Your task to perform on an android device: open app "DoorDash - Food Delivery" (install if not already installed), go to login, and select forgot password Image 0: 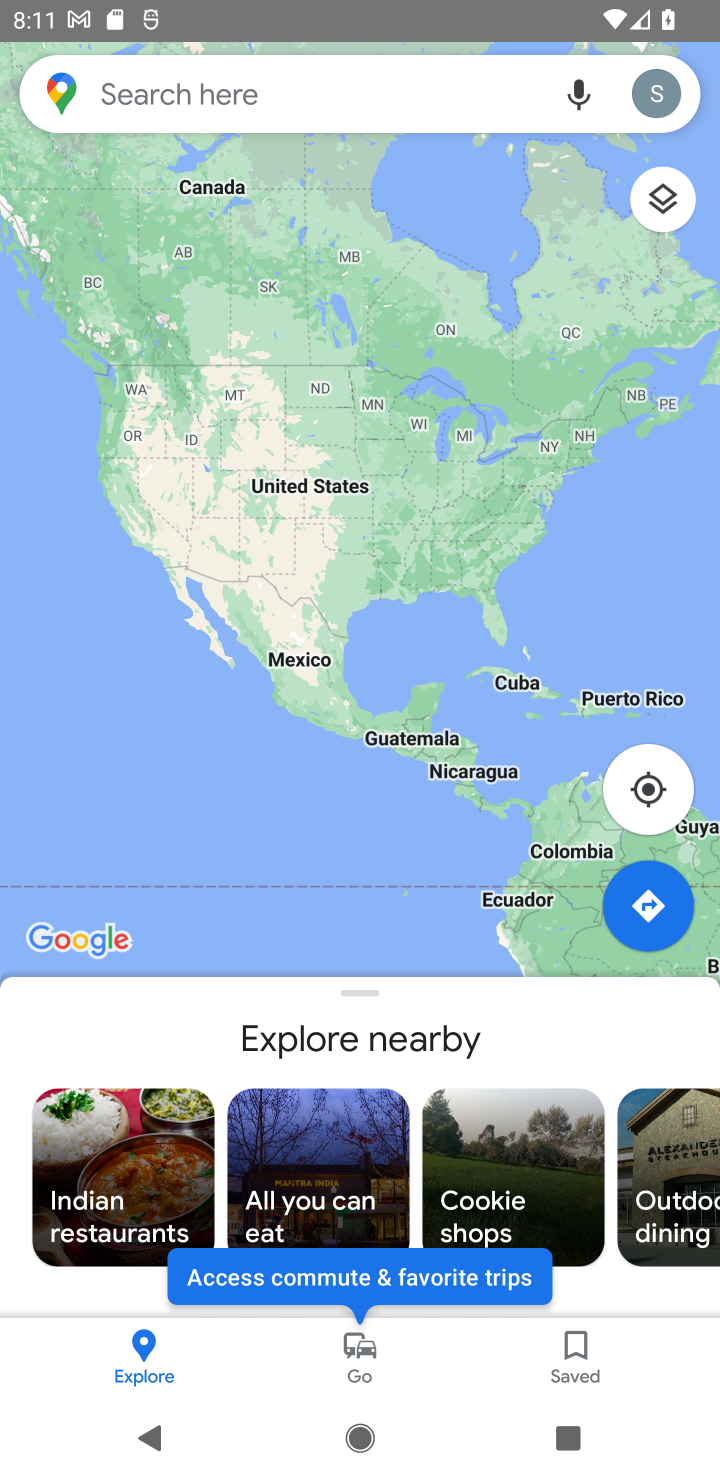
Step 0: press home button
Your task to perform on an android device: open app "DoorDash - Food Delivery" (install if not already installed), go to login, and select forgot password Image 1: 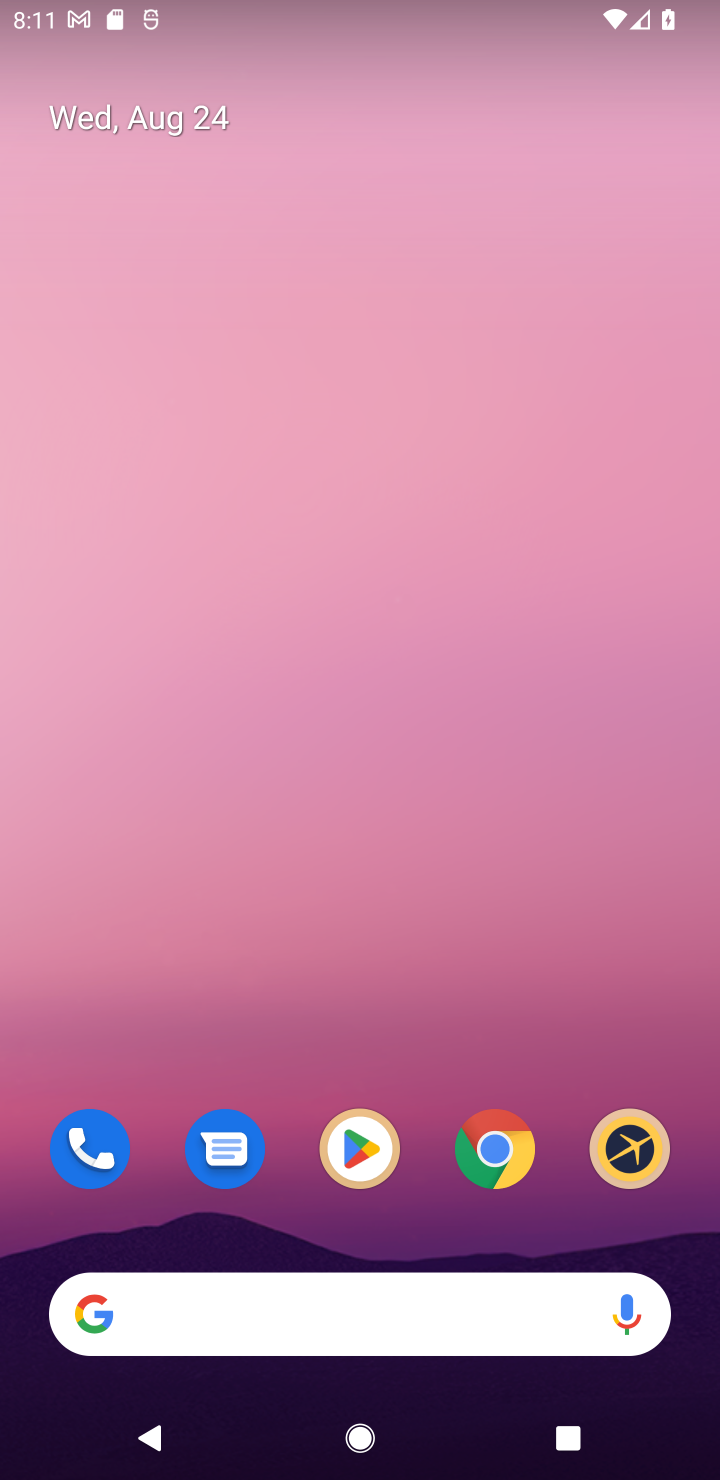
Step 1: click (327, 1137)
Your task to perform on an android device: open app "DoorDash - Food Delivery" (install if not already installed), go to login, and select forgot password Image 2: 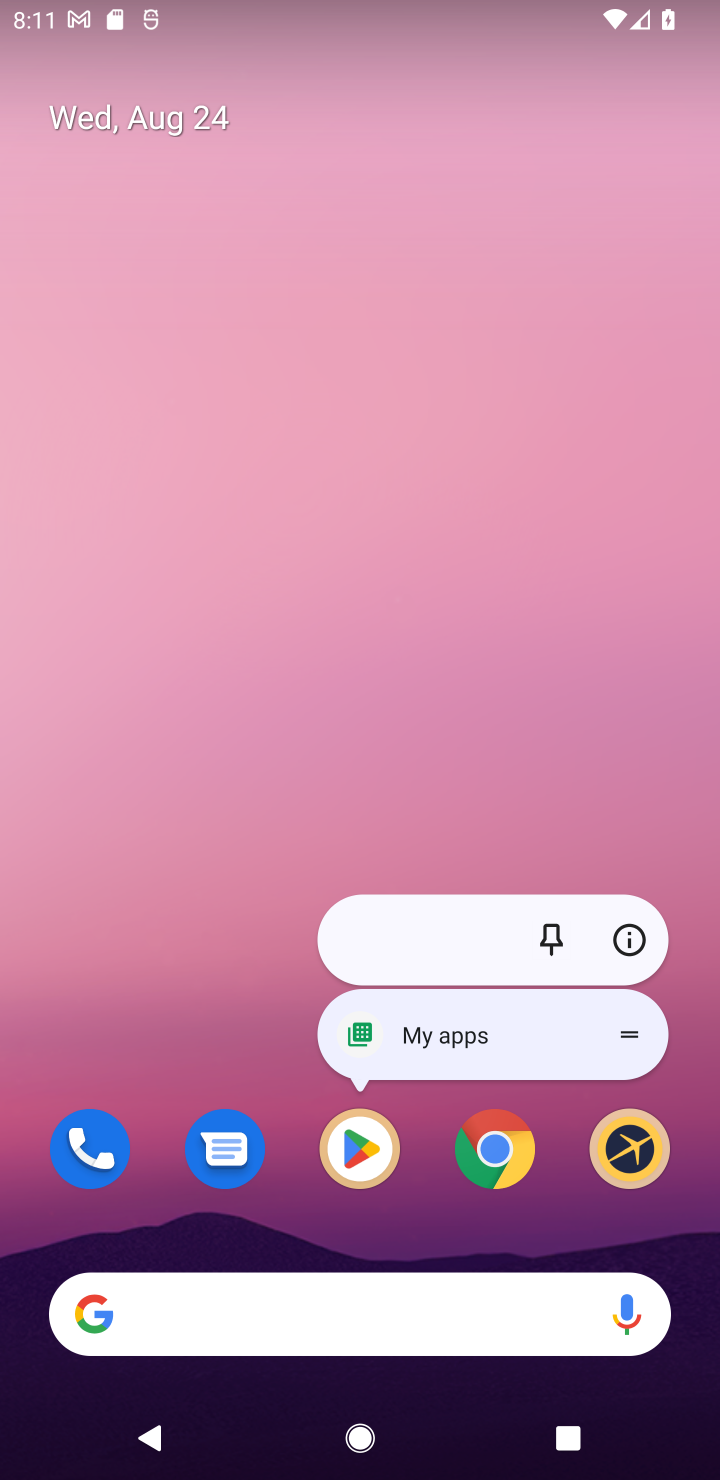
Step 2: click (334, 1137)
Your task to perform on an android device: open app "DoorDash - Food Delivery" (install if not already installed), go to login, and select forgot password Image 3: 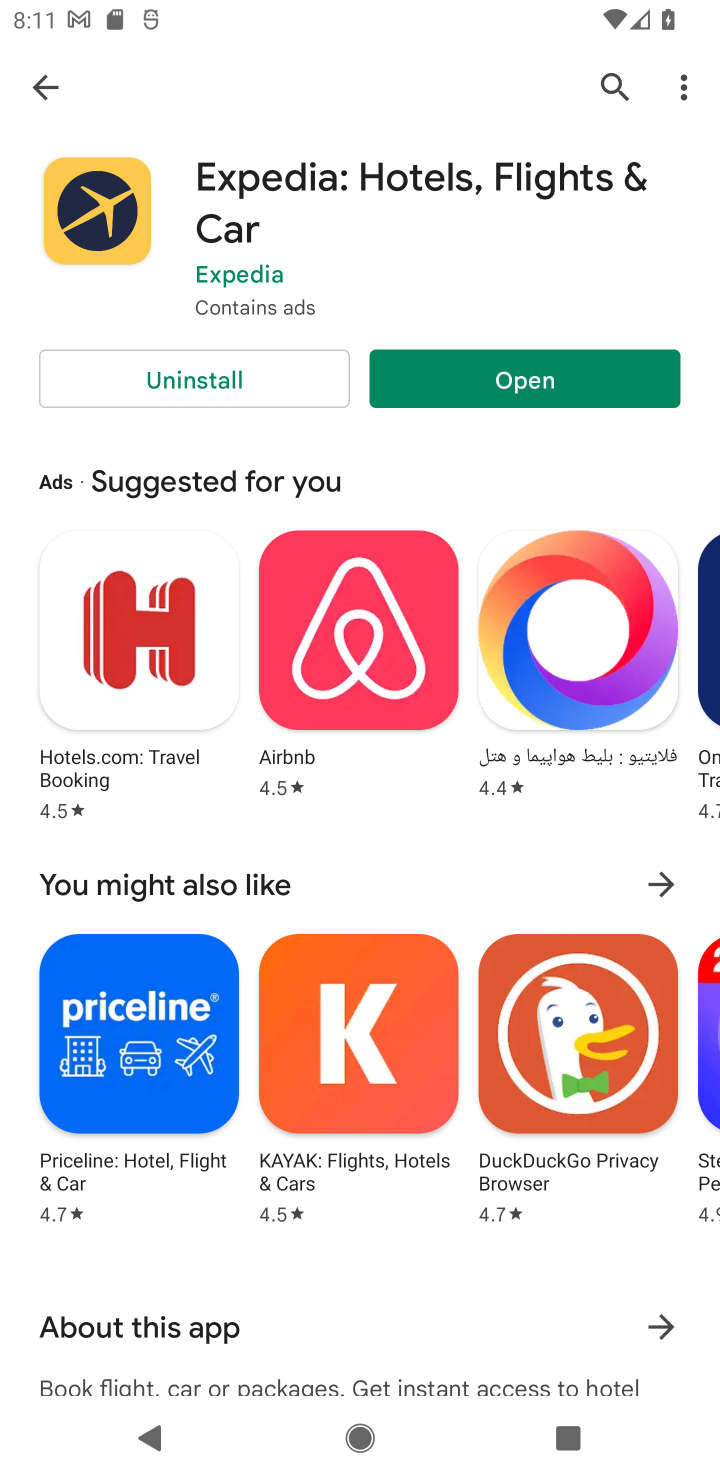
Step 3: click (597, 79)
Your task to perform on an android device: open app "DoorDash - Food Delivery" (install if not already installed), go to login, and select forgot password Image 4: 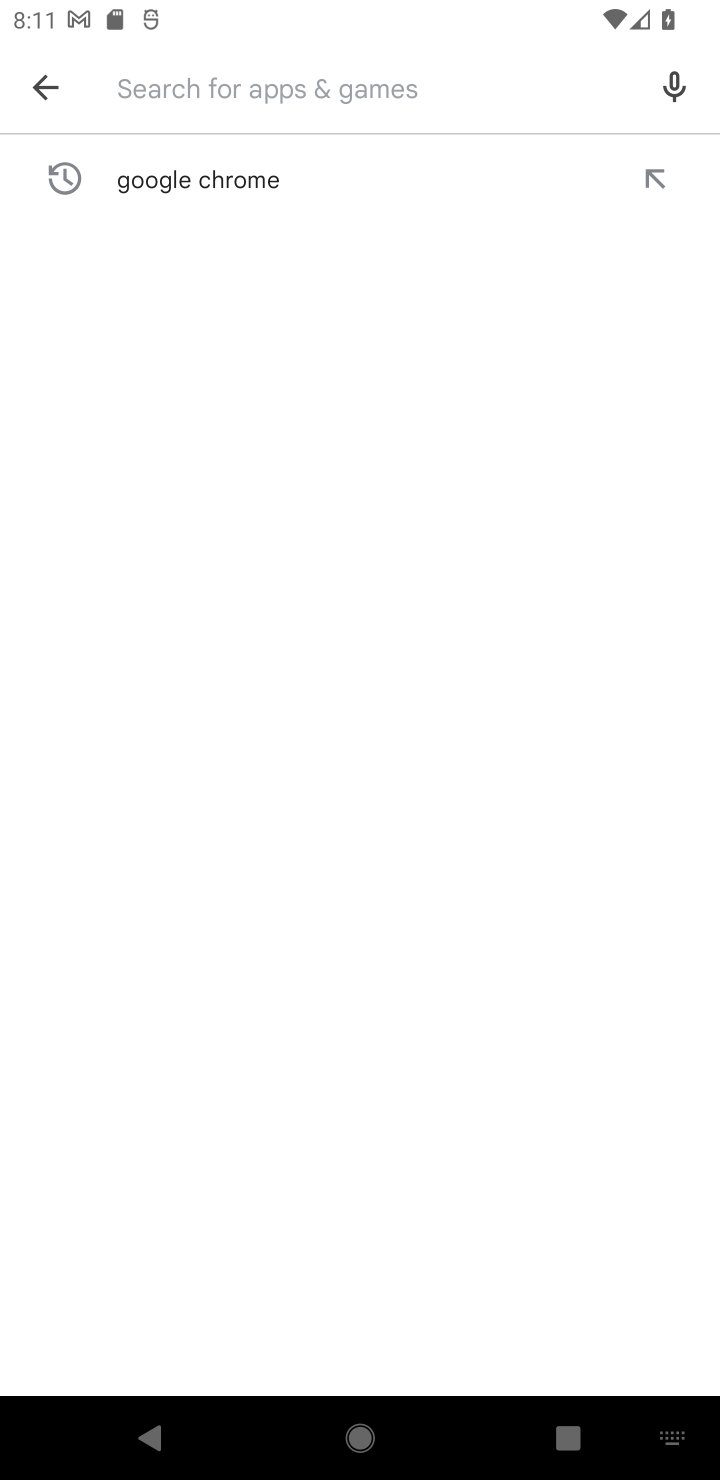
Step 4: click (250, 70)
Your task to perform on an android device: open app "DoorDash - Food Delivery" (install if not already installed), go to login, and select forgot password Image 5: 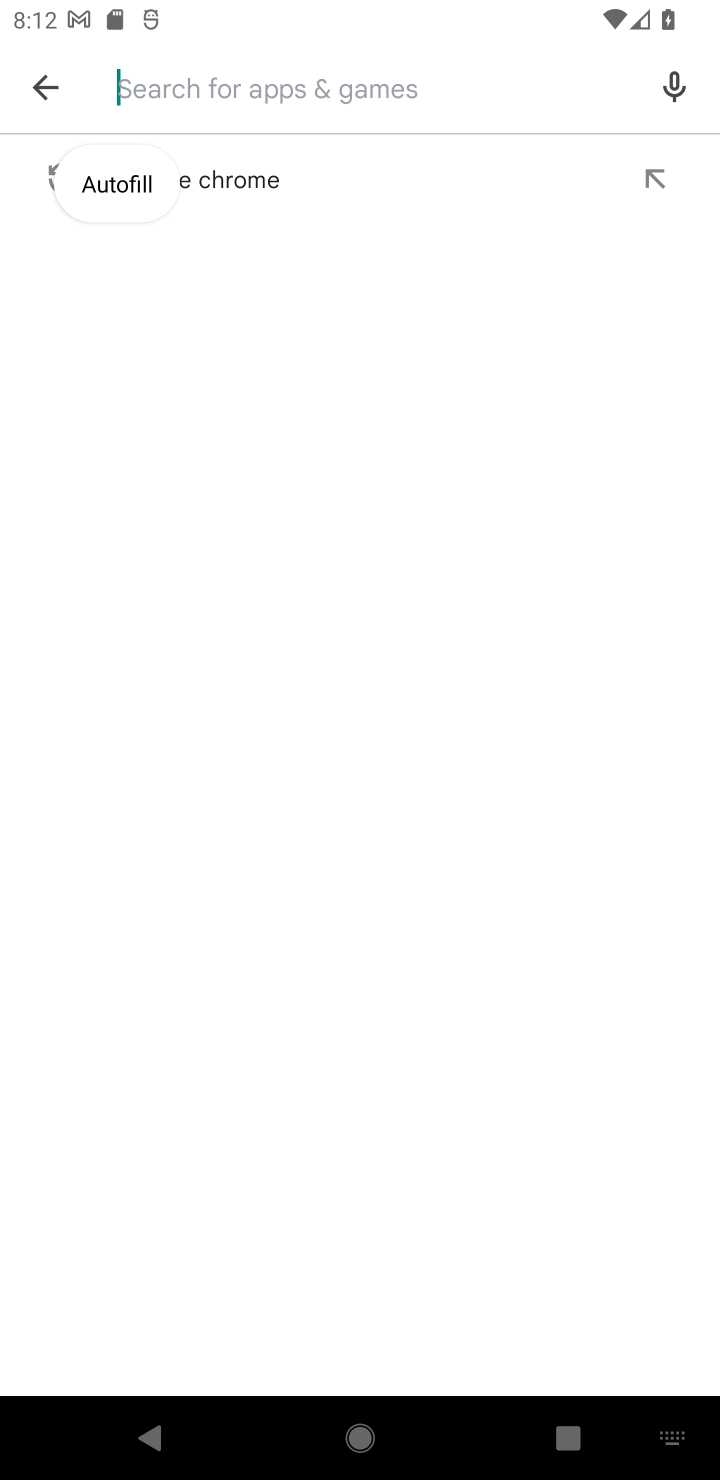
Step 5: type "DoorDash - Food Delivery"
Your task to perform on an android device: open app "DoorDash - Food Delivery" (install if not already installed), go to login, and select forgot password Image 6: 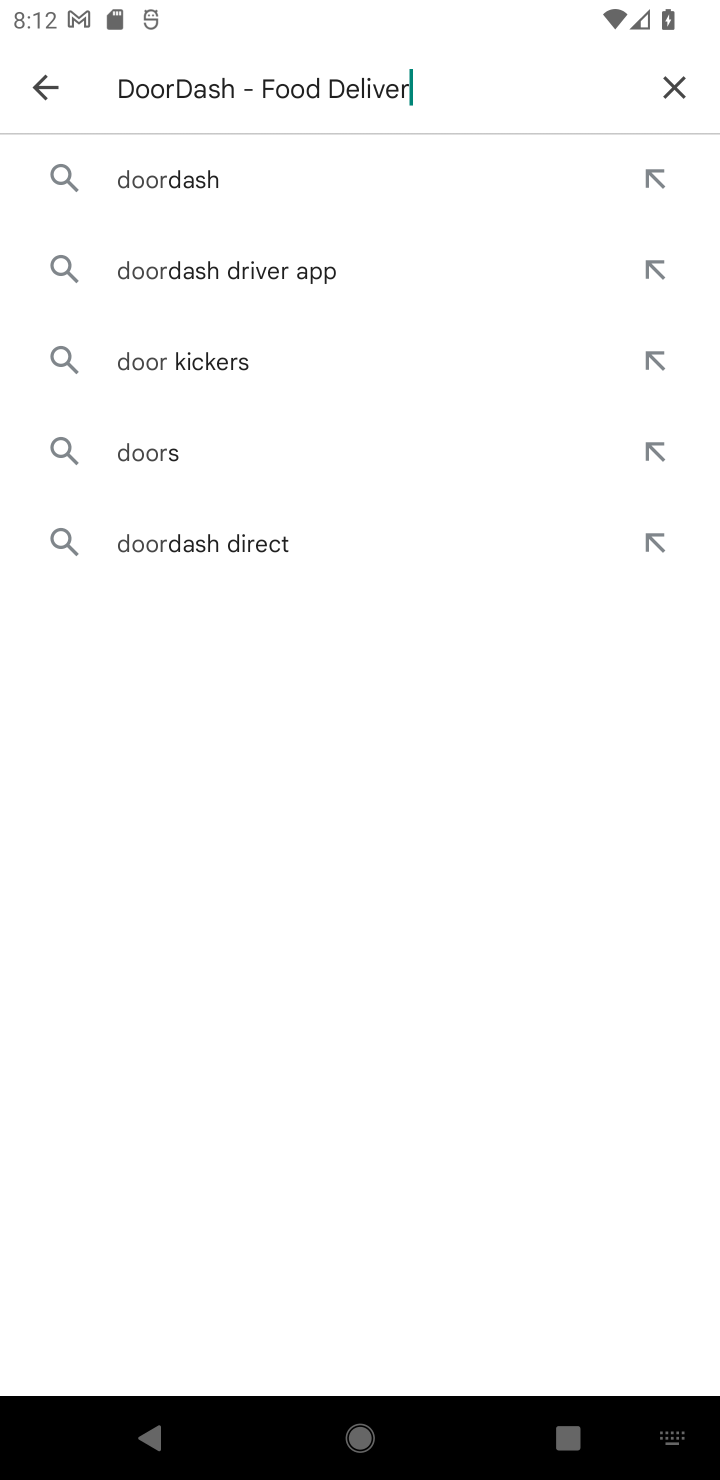
Step 6: type ""
Your task to perform on an android device: open app "DoorDash - Food Delivery" (install if not already installed), go to login, and select forgot password Image 7: 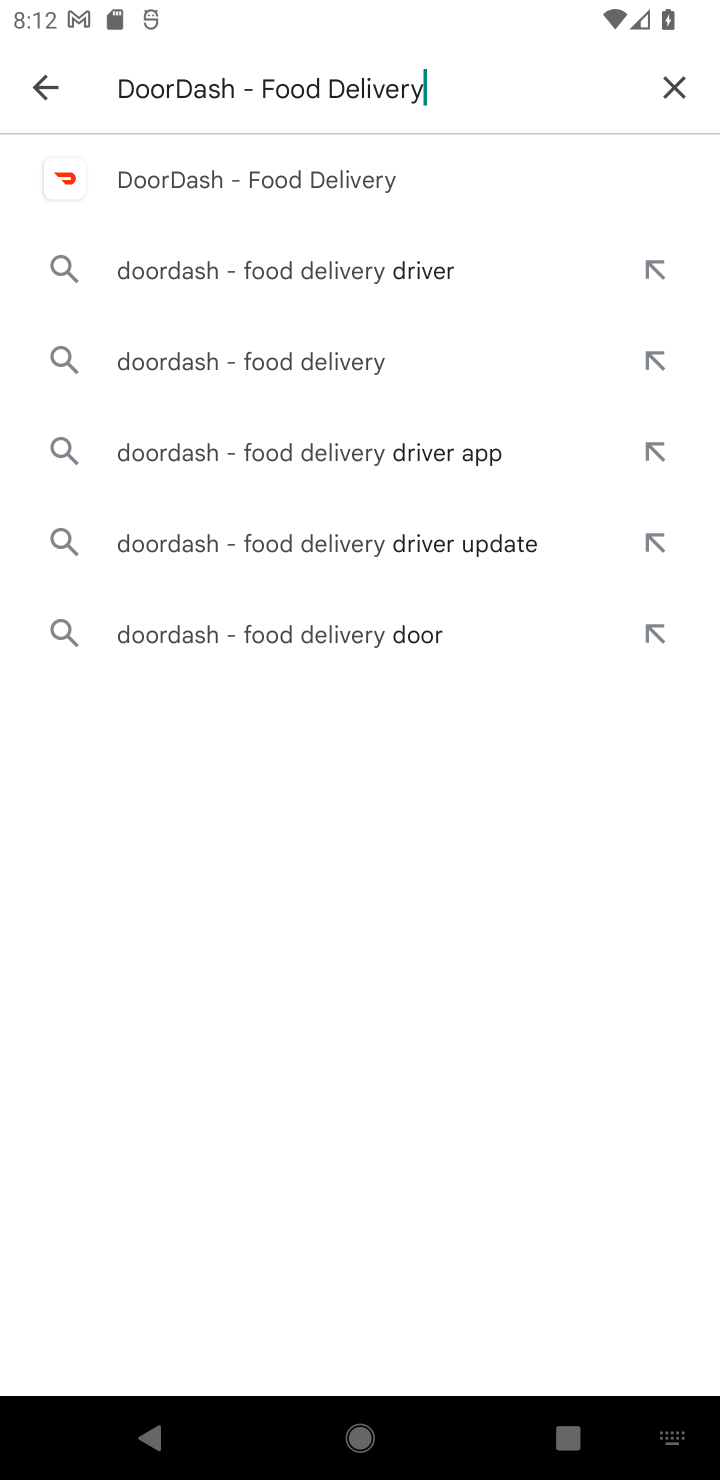
Step 7: click (443, 157)
Your task to perform on an android device: open app "DoorDash - Food Delivery" (install if not already installed), go to login, and select forgot password Image 8: 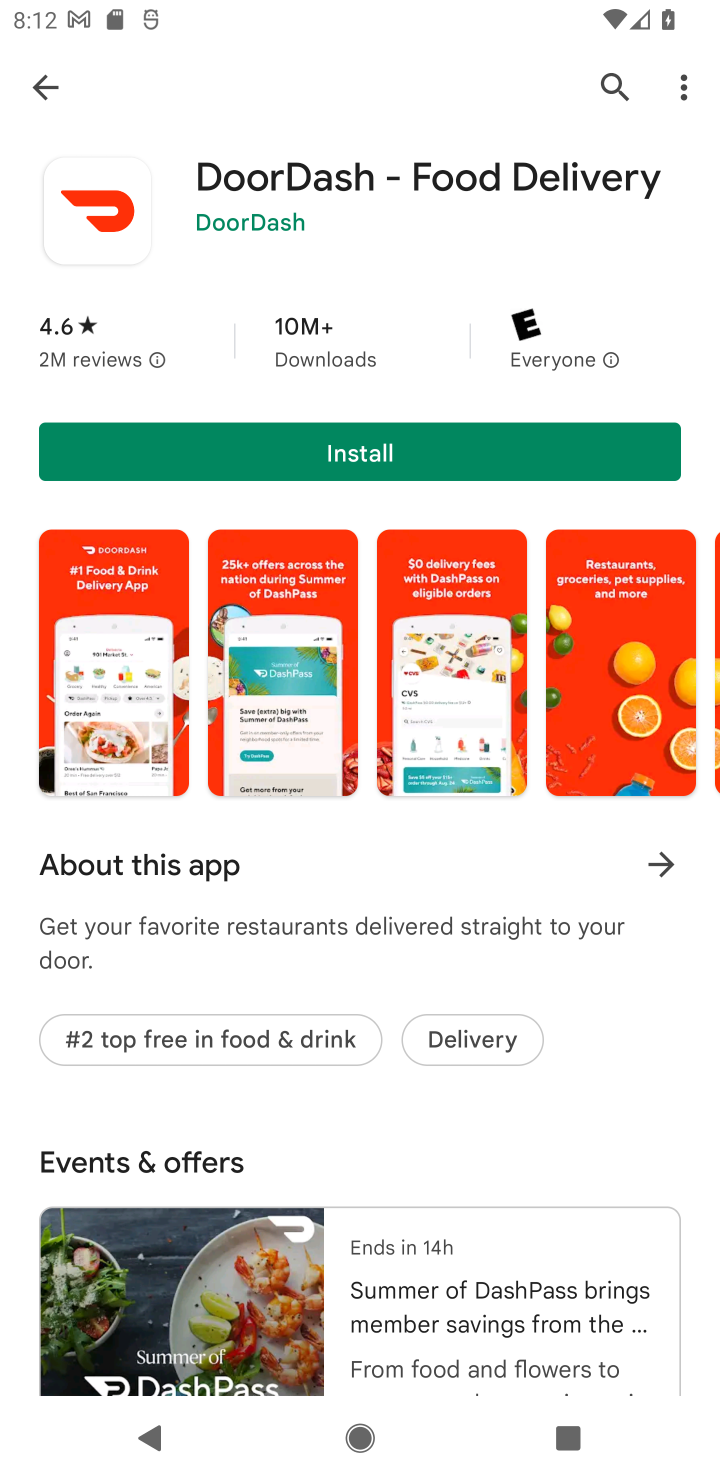
Step 8: click (426, 453)
Your task to perform on an android device: open app "DoorDash - Food Delivery" (install if not already installed), go to login, and select forgot password Image 9: 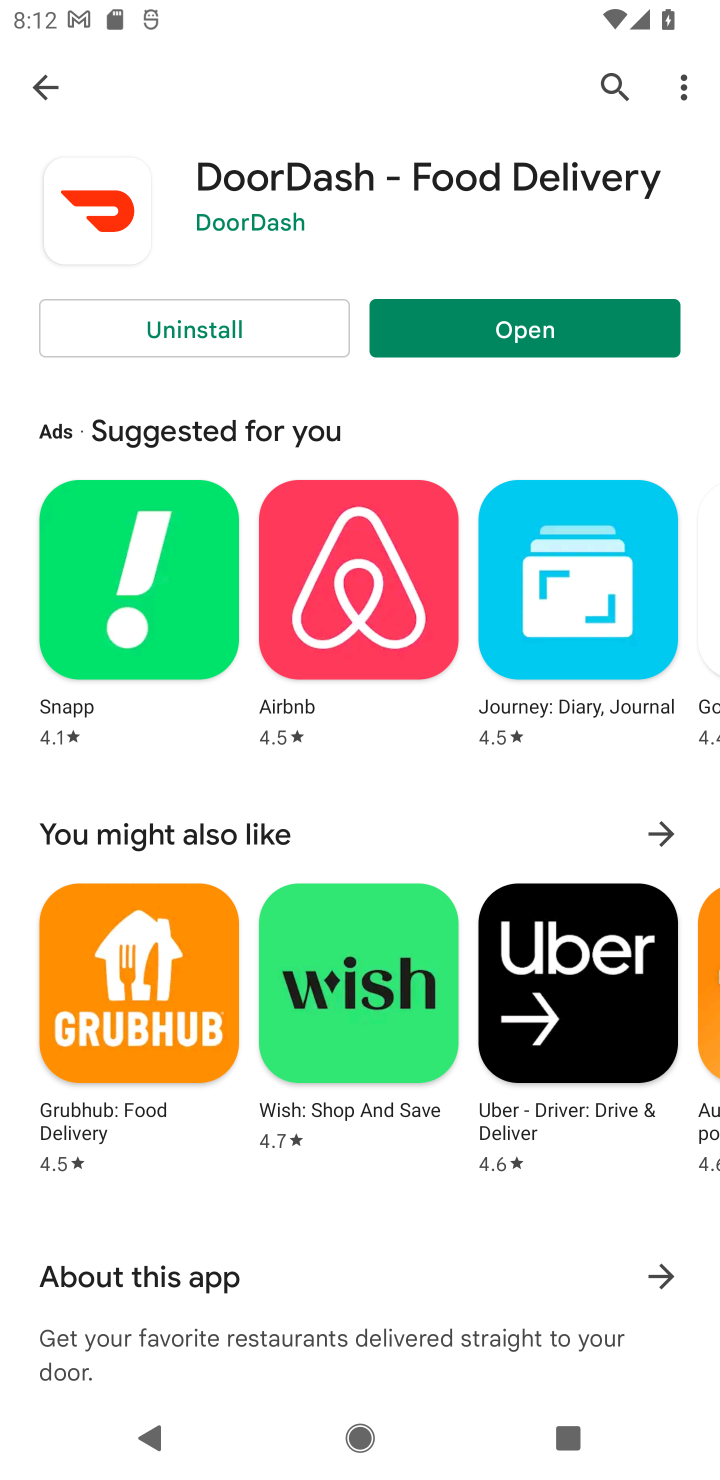
Step 9: click (509, 348)
Your task to perform on an android device: open app "DoorDash - Food Delivery" (install if not already installed), go to login, and select forgot password Image 10: 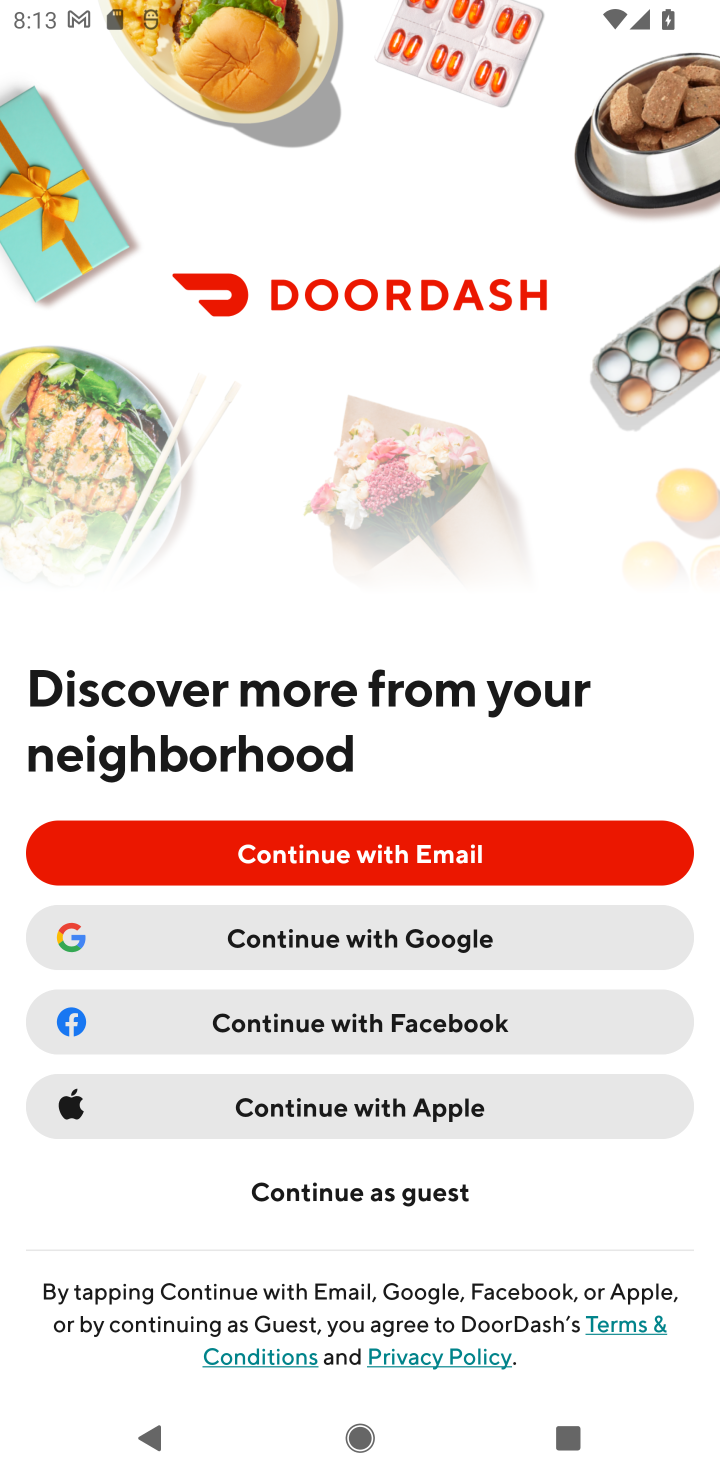
Step 10: task complete